Your task to perform on an android device: Open the Play Movies app and select the watchlist tab. Image 0: 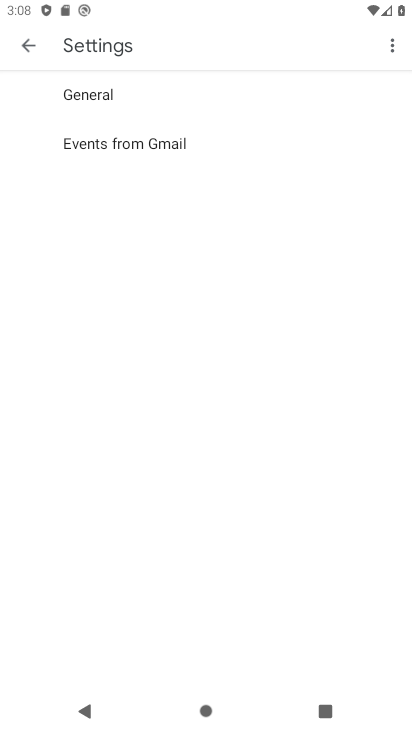
Step 0: press home button
Your task to perform on an android device: Open the Play Movies app and select the watchlist tab. Image 1: 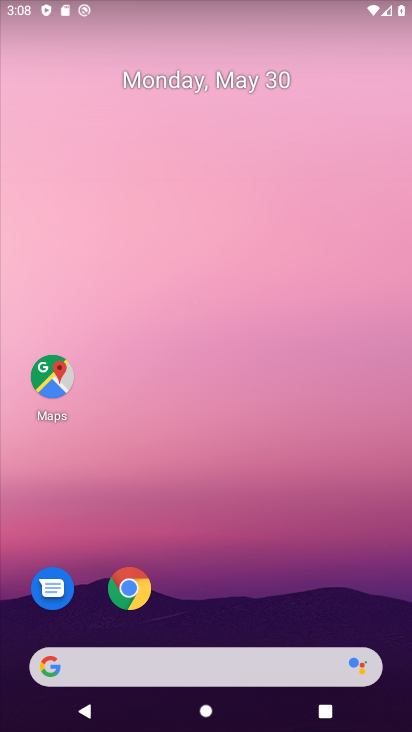
Step 1: drag from (345, 603) to (304, 72)
Your task to perform on an android device: Open the Play Movies app and select the watchlist tab. Image 2: 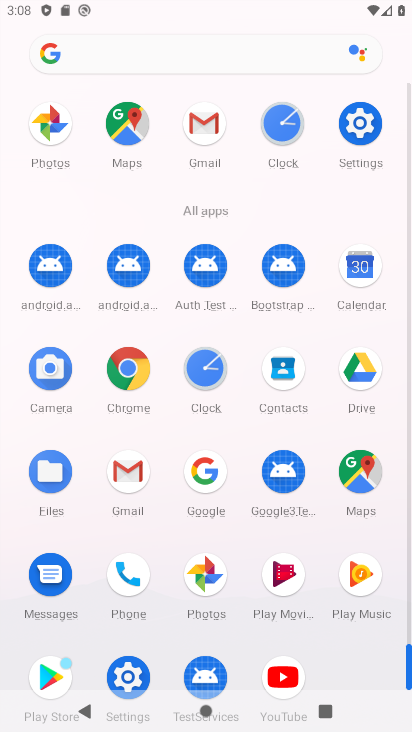
Step 2: click (280, 573)
Your task to perform on an android device: Open the Play Movies app and select the watchlist tab. Image 3: 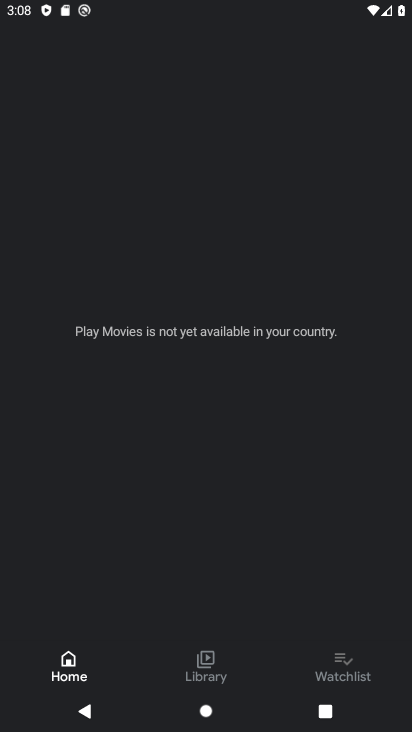
Step 3: click (339, 655)
Your task to perform on an android device: Open the Play Movies app and select the watchlist tab. Image 4: 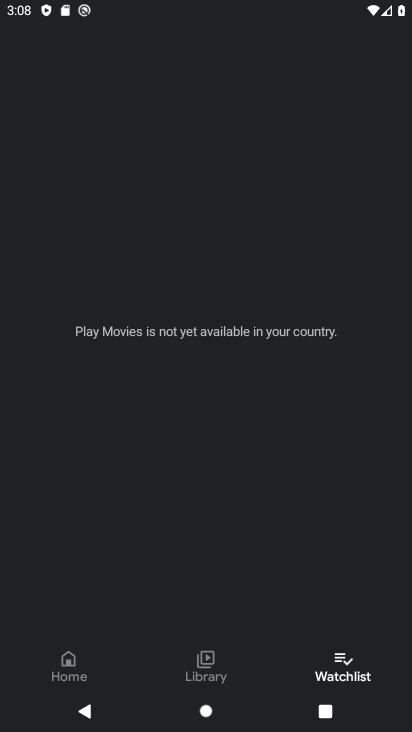
Step 4: task complete